Your task to perform on an android device: set an alarm Image 0: 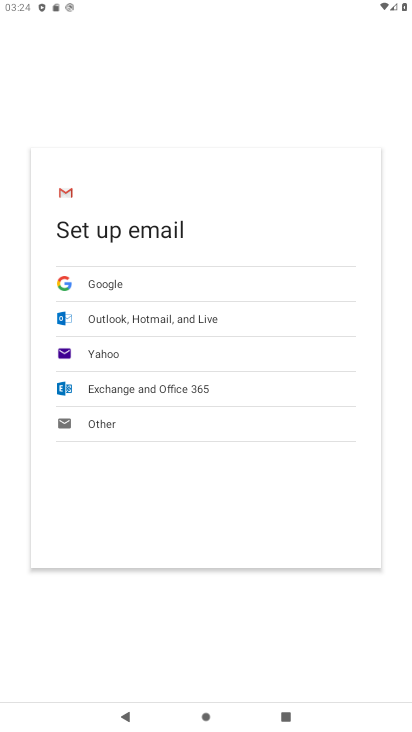
Step 0: press home button
Your task to perform on an android device: set an alarm Image 1: 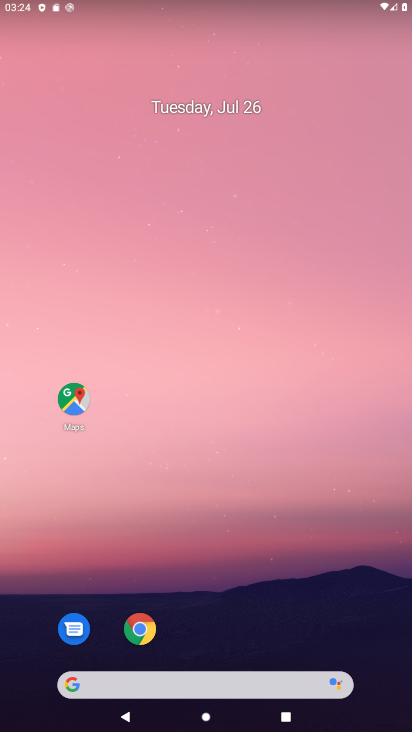
Step 1: drag from (290, 578) to (251, 44)
Your task to perform on an android device: set an alarm Image 2: 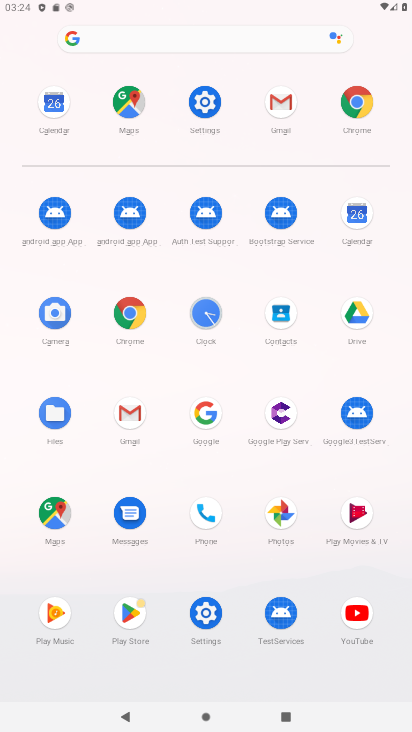
Step 2: click (205, 313)
Your task to perform on an android device: set an alarm Image 3: 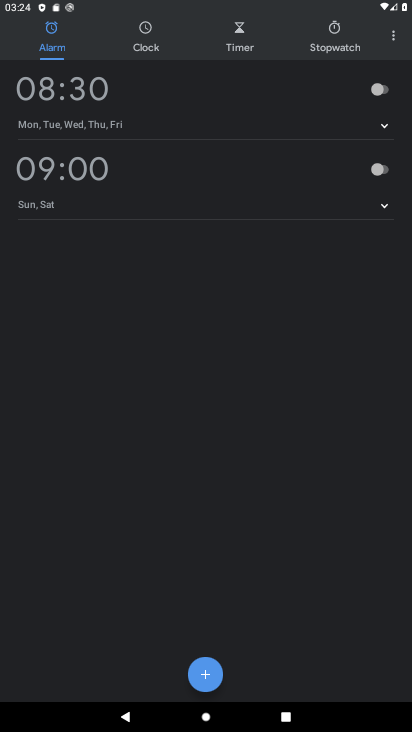
Step 3: click (203, 664)
Your task to perform on an android device: set an alarm Image 4: 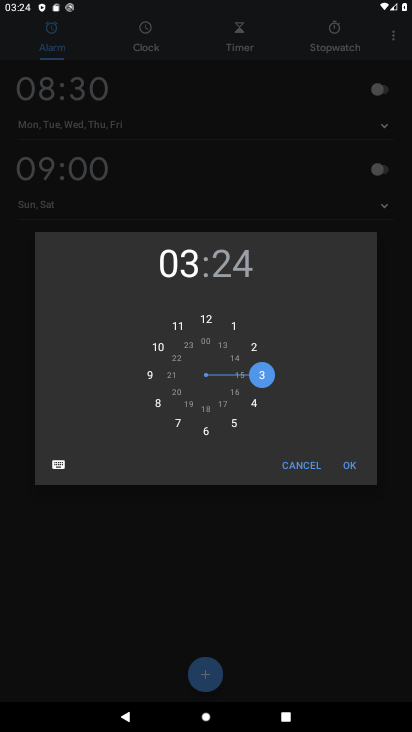
Step 4: click (207, 434)
Your task to perform on an android device: set an alarm Image 5: 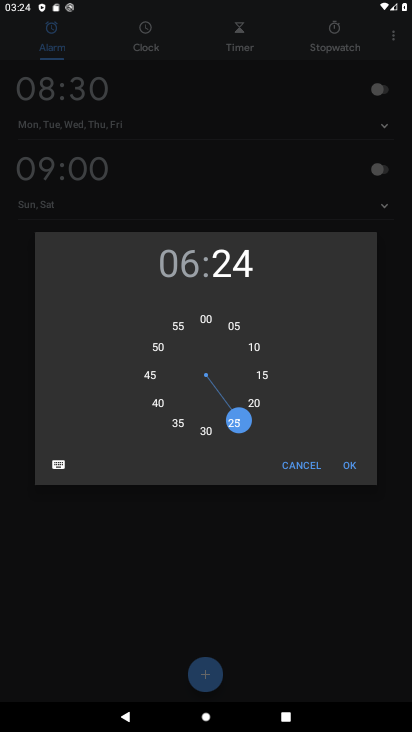
Step 5: click (207, 434)
Your task to perform on an android device: set an alarm Image 6: 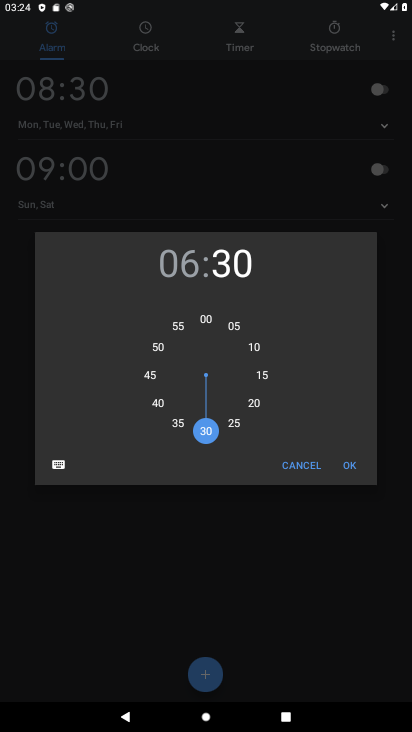
Step 6: click (355, 469)
Your task to perform on an android device: set an alarm Image 7: 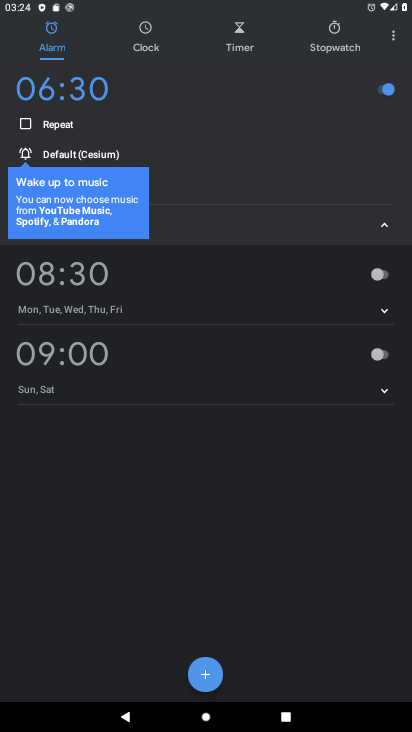
Step 7: task complete